Your task to perform on an android device: Check the news Image 0: 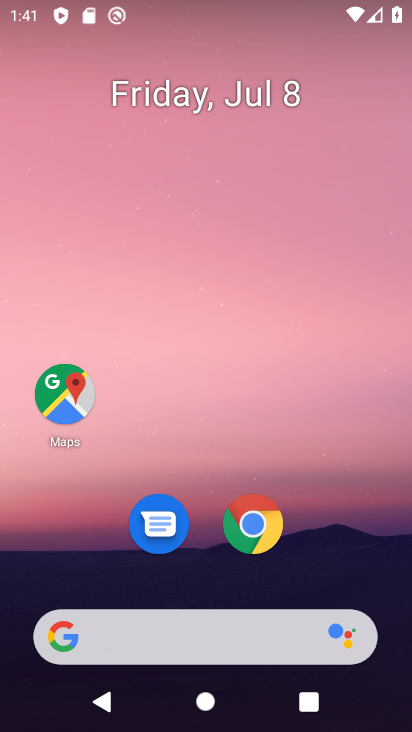
Step 0: click (136, 636)
Your task to perform on an android device: Check the news Image 1: 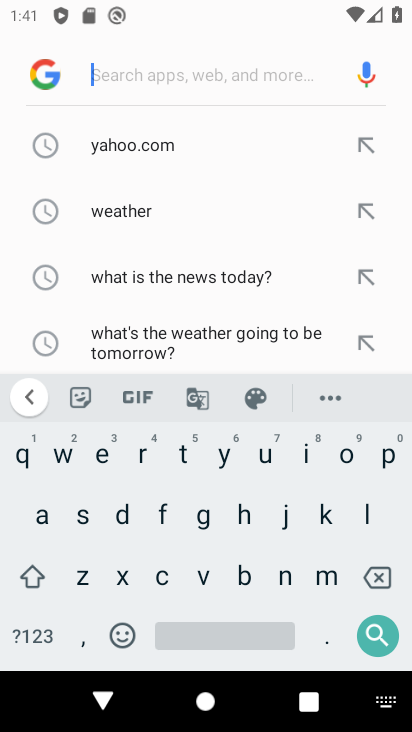
Step 1: click (282, 567)
Your task to perform on an android device: Check the news Image 2: 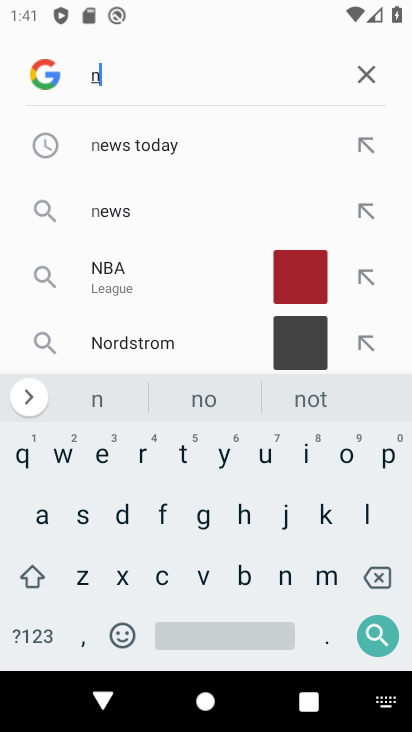
Step 2: click (101, 455)
Your task to perform on an android device: Check the news Image 3: 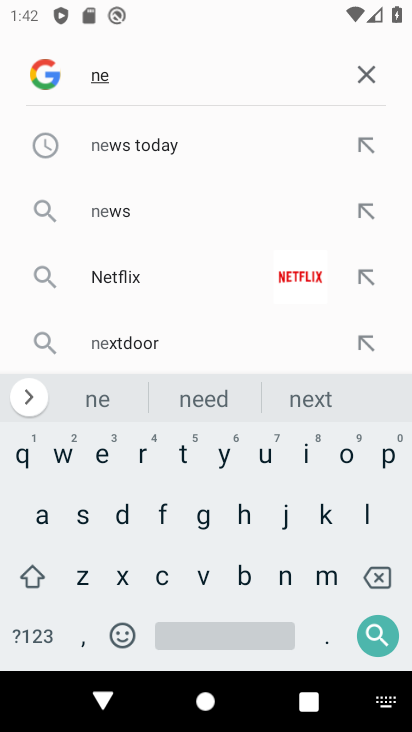
Step 3: click (134, 222)
Your task to perform on an android device: Check the news Image 4: 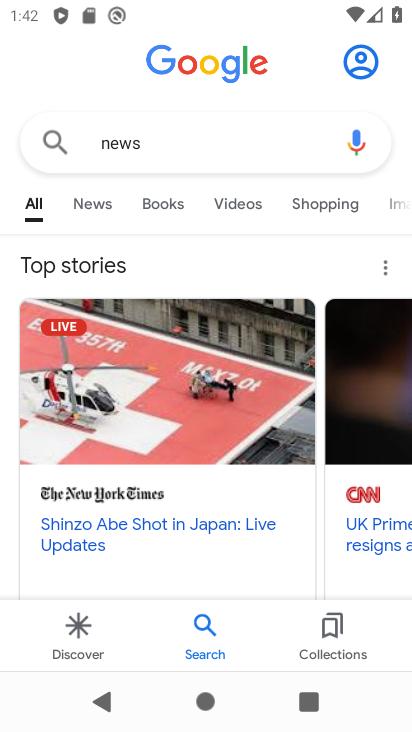
Step 4: task complete